Your task to perform on an android device: turn off location history Image 0: 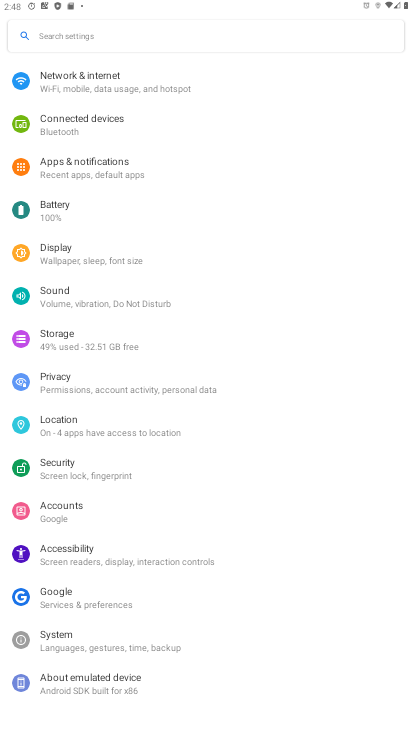
Step 0: press home button
Your task to perform on an android device: turn off location history Image 1: 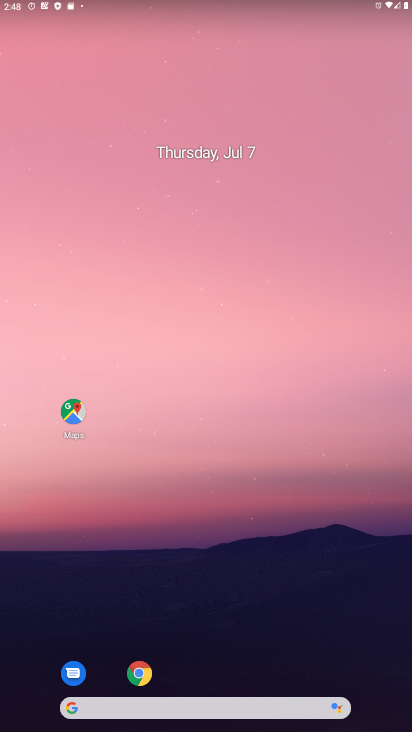
Step 1: drag from (213, 700) to (373, 260)
Your task to perform on an android device: turn off location history Image 2: 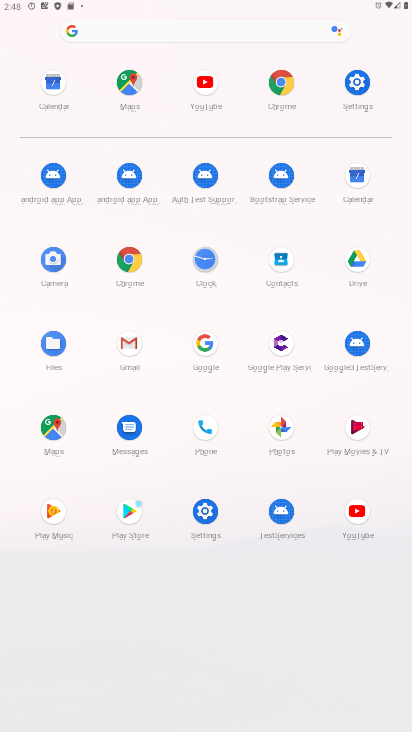
Step 2: click (191, 507)
Your task to perform on an android device: turn off location history Image 3: 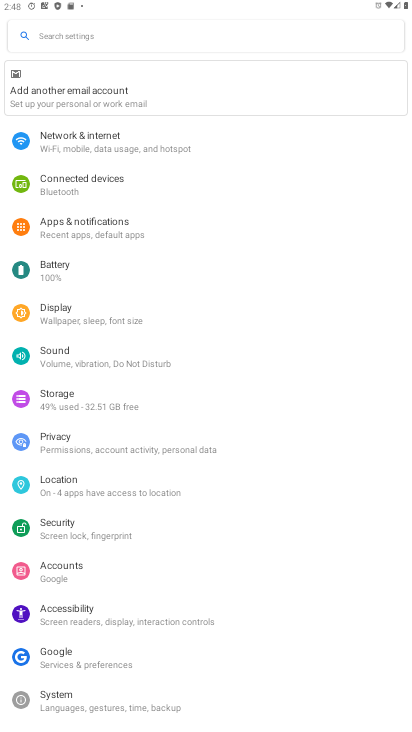
Step 3: click (72, 471)
Your task to perform on an android device: turn off location history Image 4: 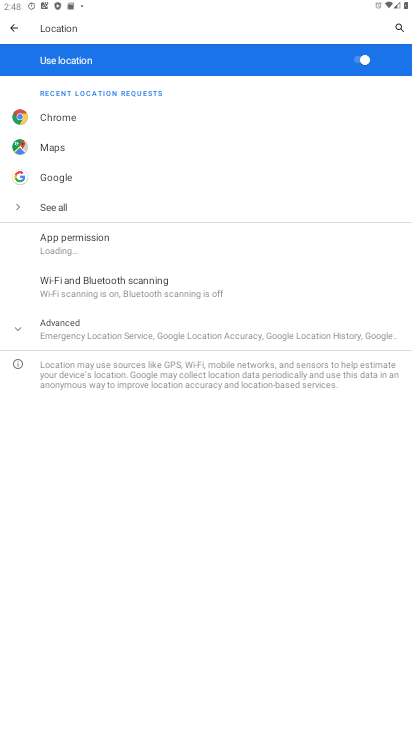
Step 4: click (76, 335)
Your task to perform on an android device: turn off location history Image 5: 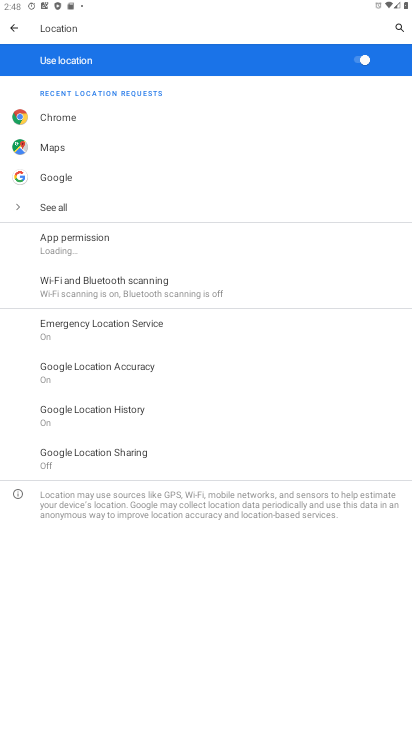
Step 5: click (124, 411)
Your task to perform on an android device: turn off location history Image 6: 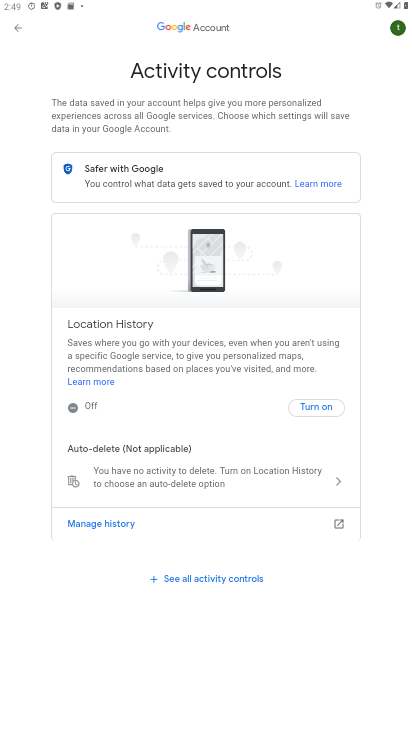
Step 6: task complete